Your task to perform on an android device: What's the weather going to be tomorrow? Image 0: 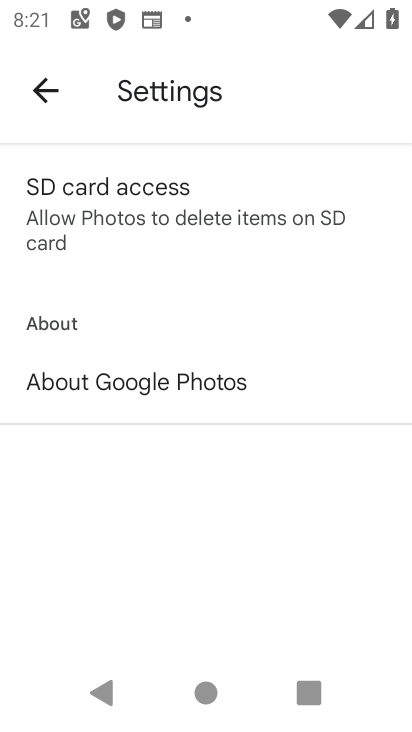
Step 0: press home button
Your task to perform on an android device: What's the weather going to be tomorrow? Image 1: 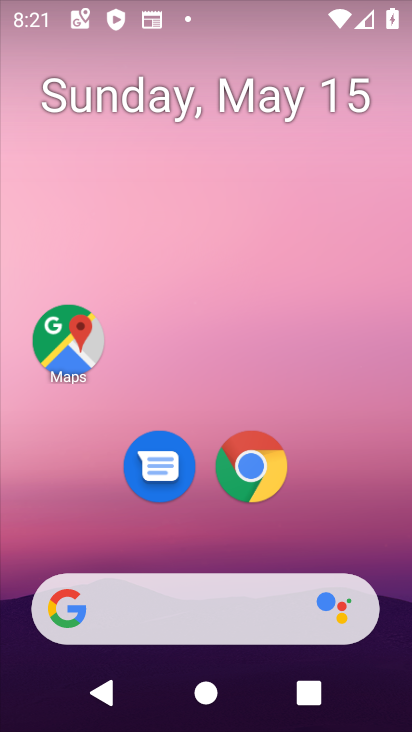
Step 1: drag from (210, 564) to (190, 6)
Your task to perform on an android device: What's the weather going to be tomorrow? Image 2: 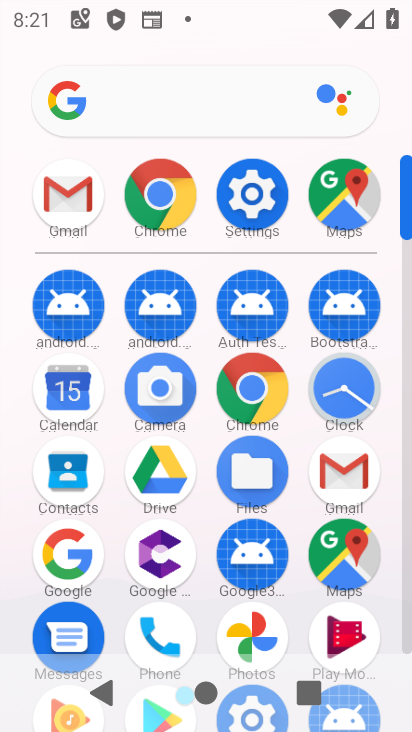
Step 2: drag from (205, 596) to (189, 349)
Your task to perform on an android device: What's the weather going to be tomorrow? Image 3: 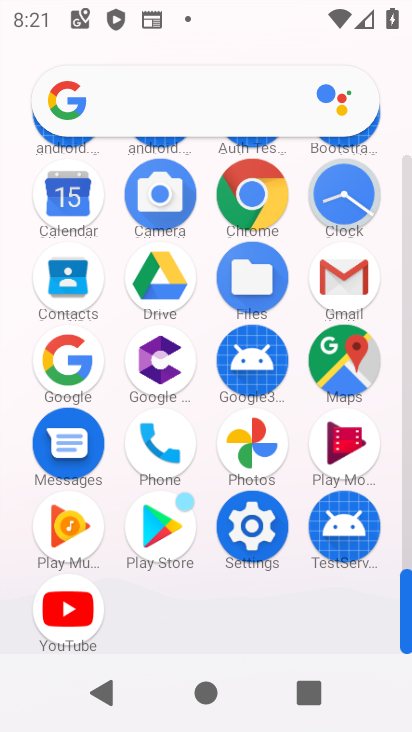
Step 3: click (74, 373)
Your task to perform on an android device: What's the weather going to be tomorrow? Image 4: 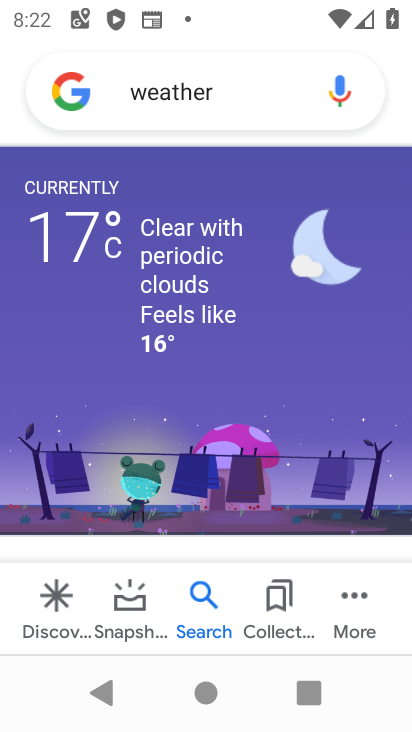
Step 4: drag from (238, 434) to (219, 135)
Your task to perform on an android device: What's the weather going to be tomorrow? Image 5: 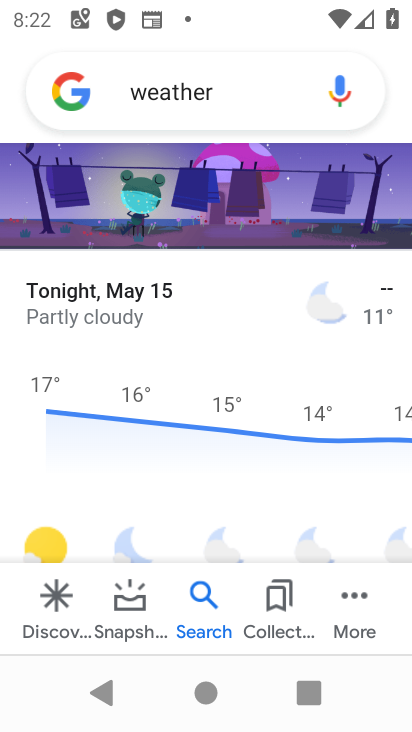
Step 5: drag from (278, 472) to (307, 730)
Your task to perform on an android device: What's the weather going to be tomorrow? Image 6: 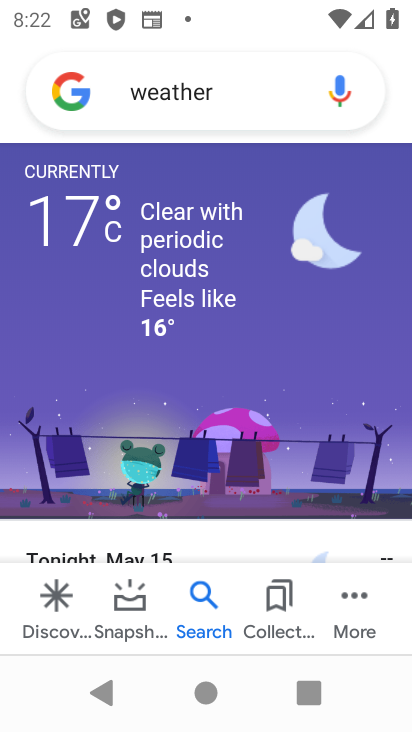
Step 6: drag from (219, 381) to (213, 727)
Your task to perform on an android device: What's the weather going to be tomorrow? Image 7: 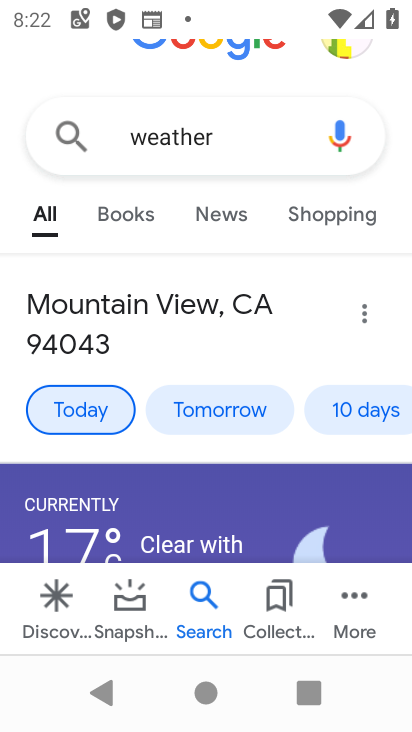
Step 7: click (244, 388)
Your task to perform on an android device: What's the weather going to be tomorrow? Image 8: 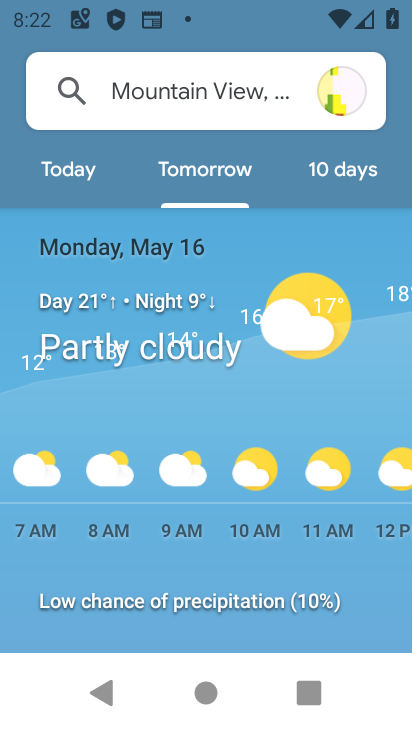
Step 8: task complete